Your task to perform on an android device: turn off wifi Image 0: 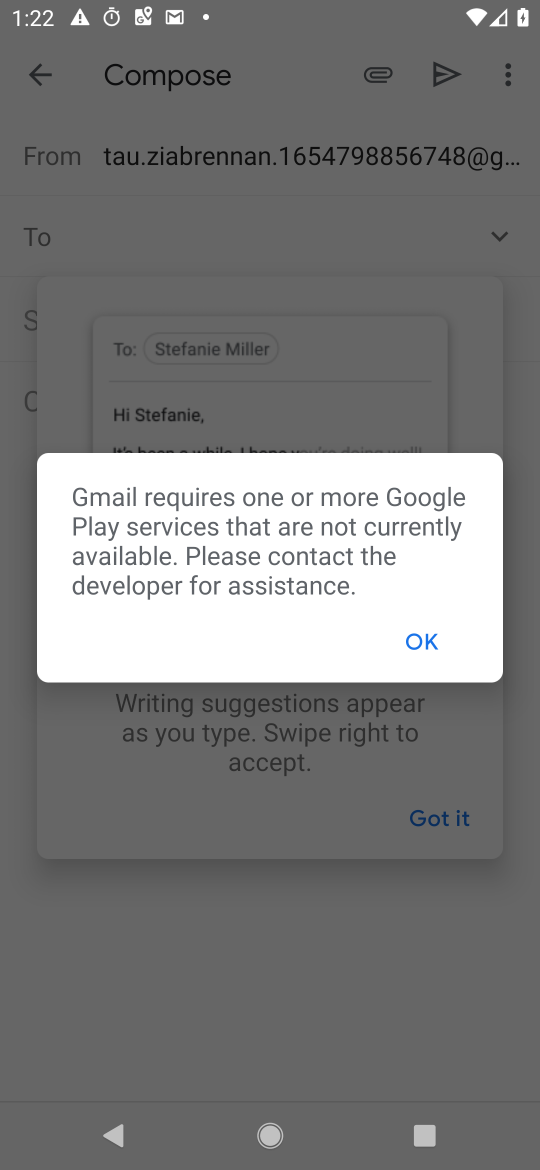
Step 0: press home button
Your task to perform on an android device: turn off wifi Image 1: 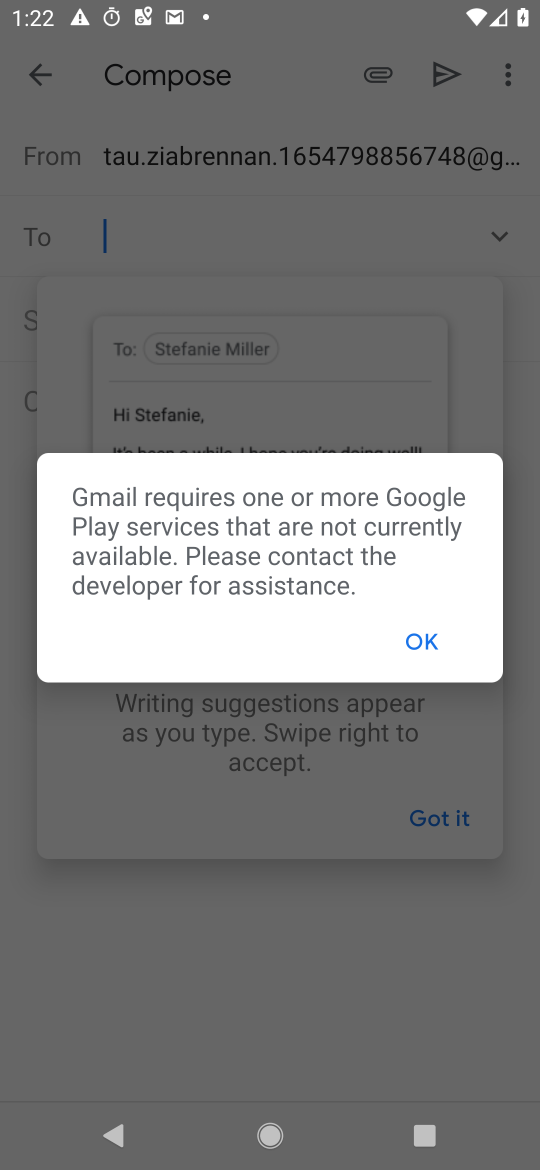
Step 1: drag from (292, 985) to (317, 545)
Your task to perform on an android device: turn off wifi Image 2: 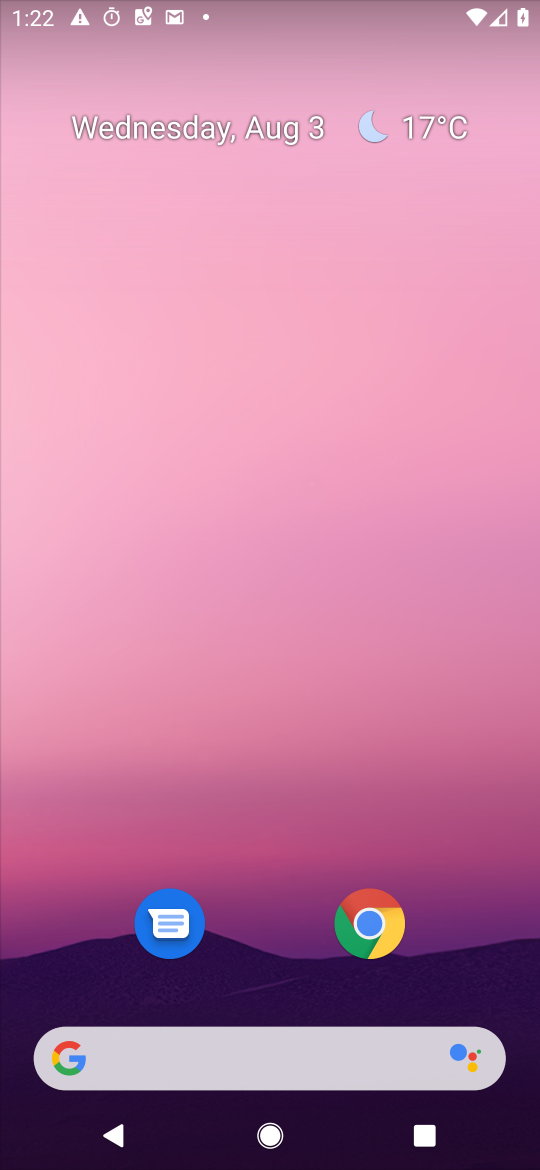
Step 2: drag from (261, 964) to (309, 13)
Your task to perform on an android device: turn off wifi Image 3: 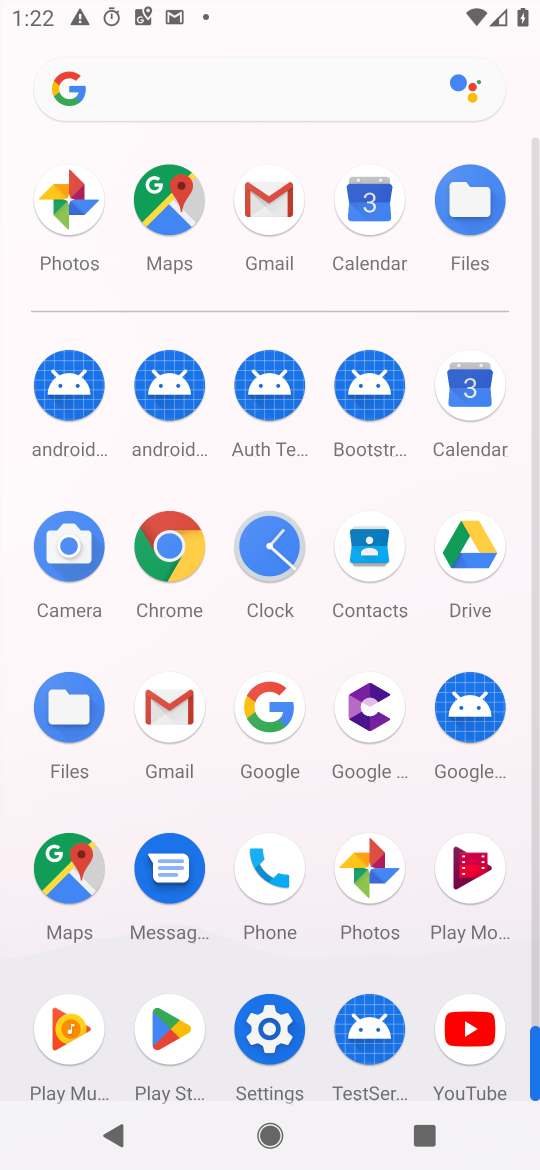
Step 3: click (249, 1032)
Your task to perform on an android device: turn off wifi Image 4: 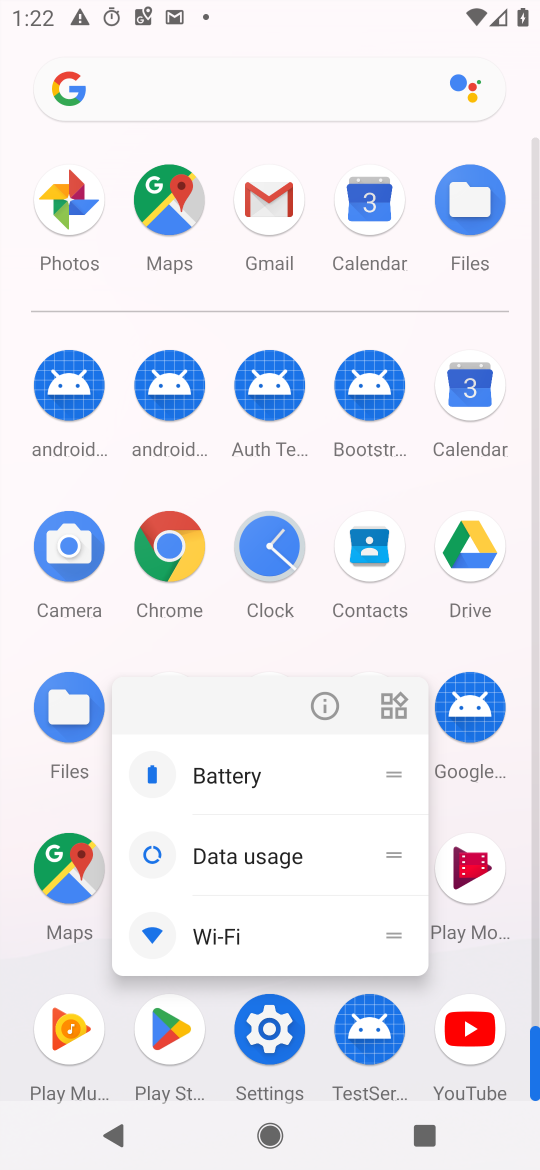
Step 4: click (315, 705)
Your task to perform on an android device: turn off wifi Image 5: 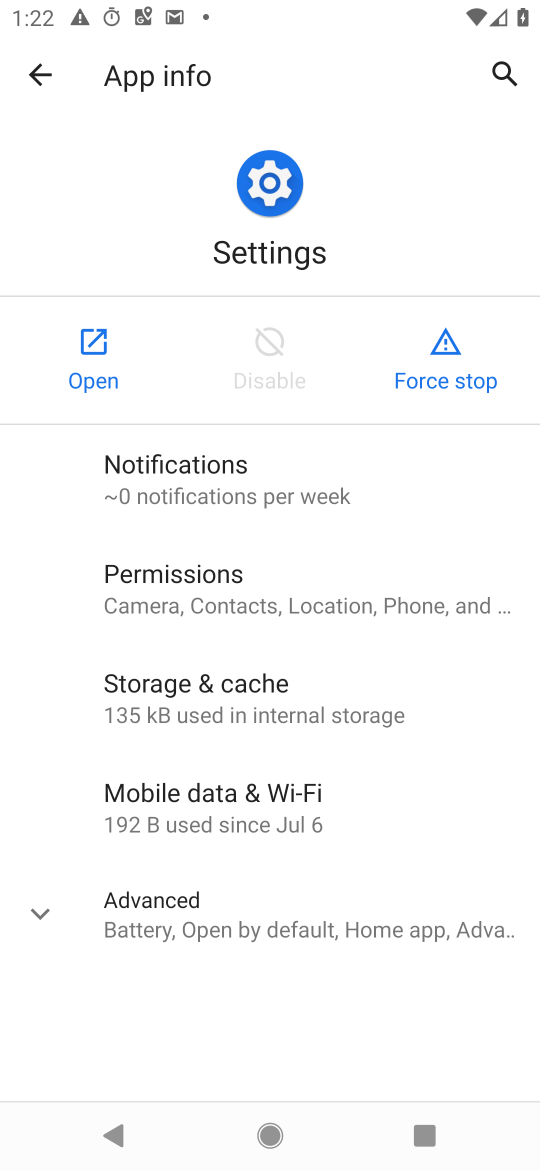
Step 5: click (104, 329)
Your task to perform on an android device: turn off wifi Image 6: 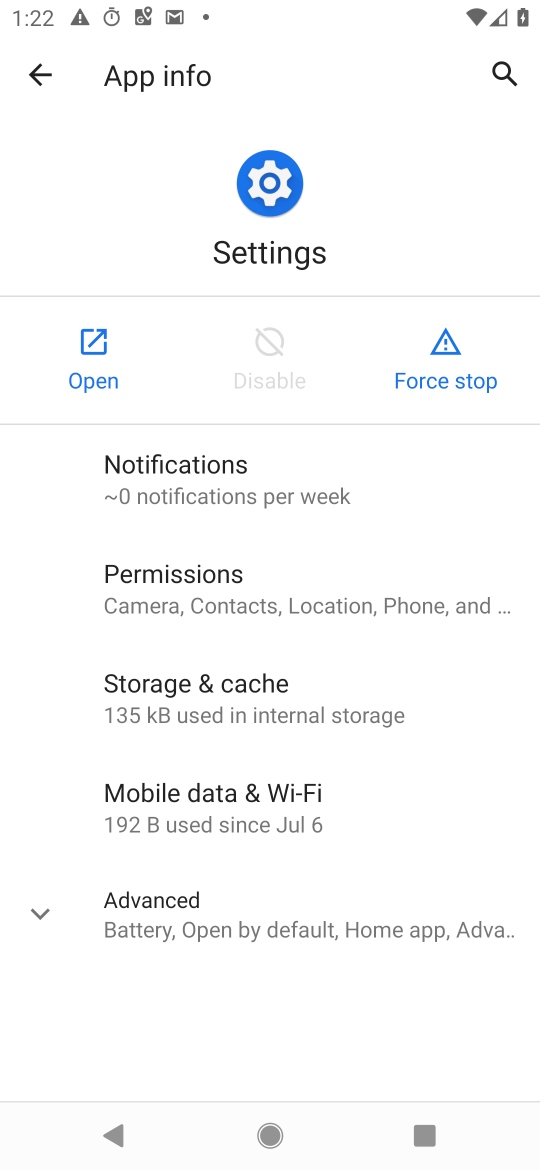
Step 6: click (104, 329)
Your task to perform on an android device: turn off wifi Image 7: 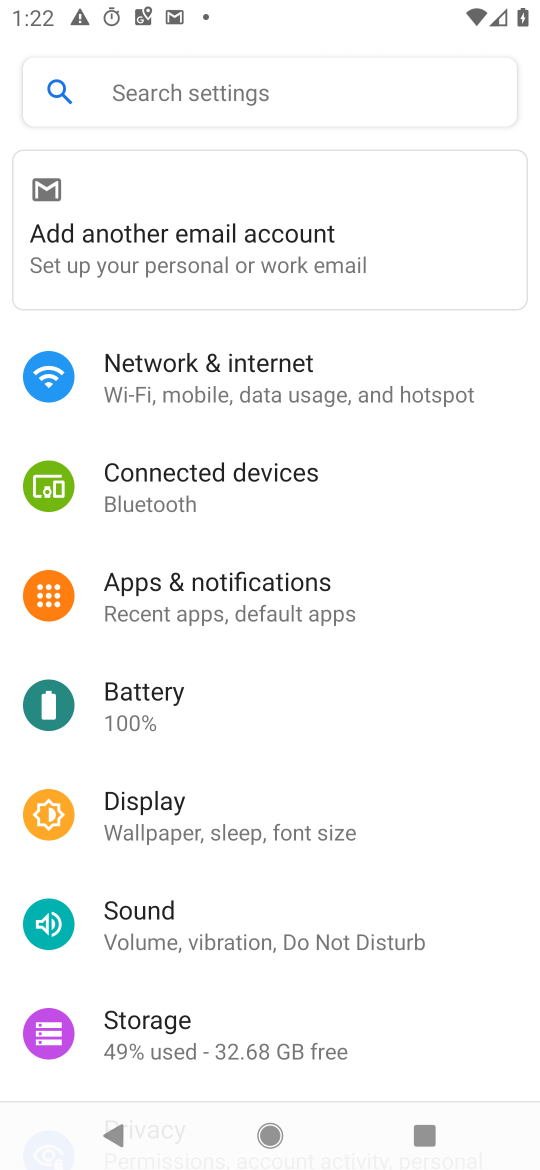
Step 7: click (335, 356)
Your task to perform on an android device: turn off wifi Image 8: 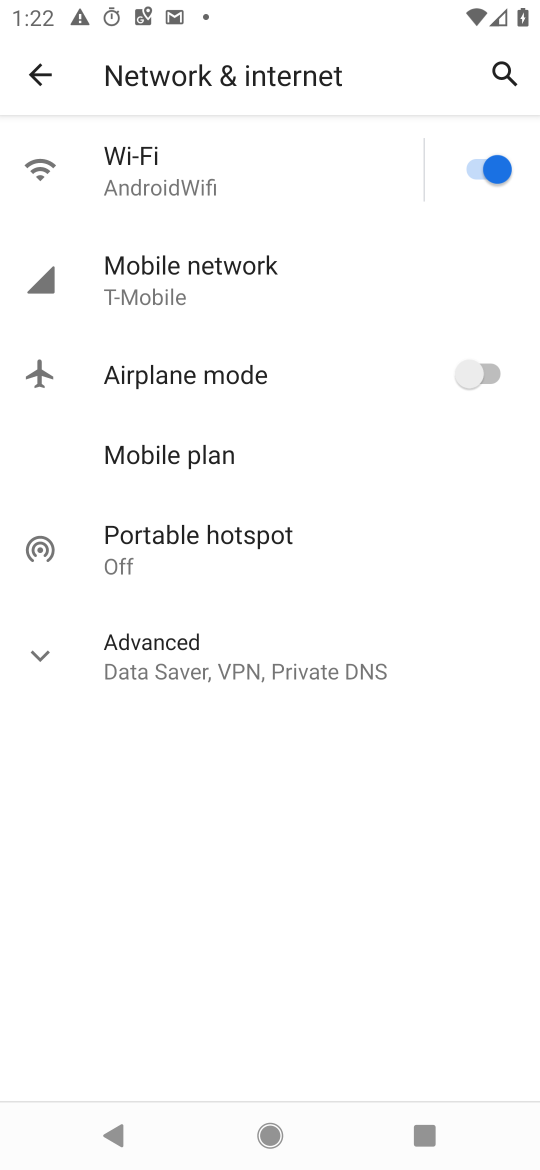
Step 8: click (196, 186)
Your task to perform on an android device: turn off wifi Image 9: 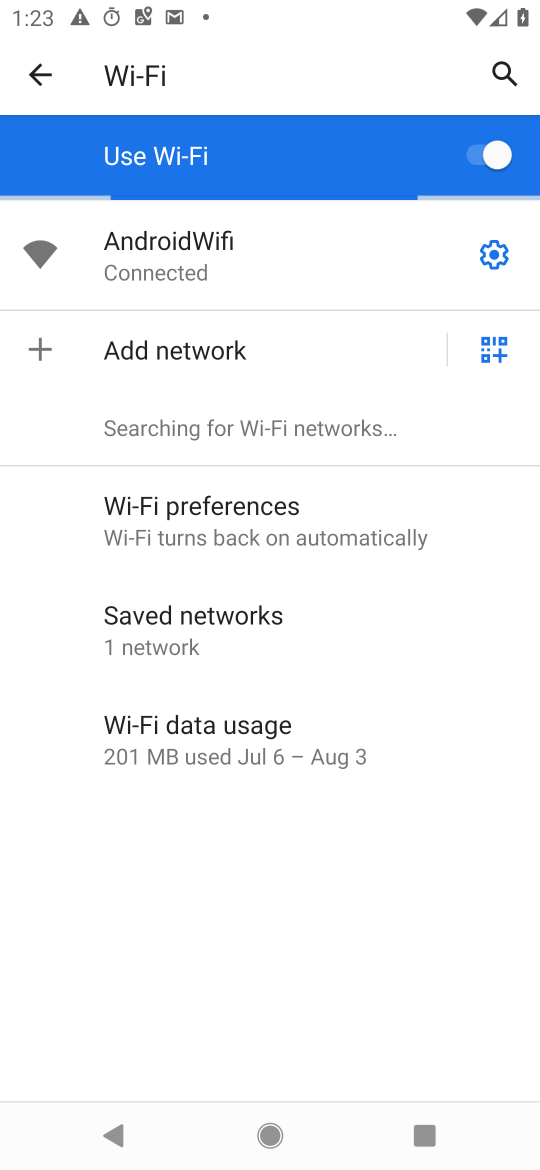
Step 9: click (483, 140)
Your task to perform on an android device: turn off wifi Image 10: 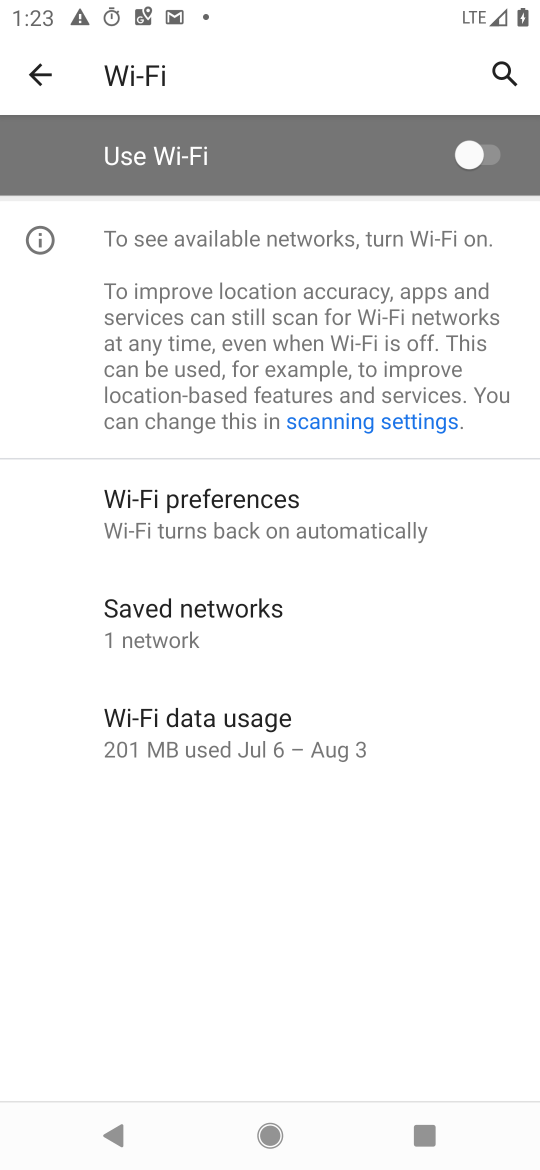
Step 10: task complete